Your task to perform on an android device: see tabs open on other devices in the chrome app Image 0: 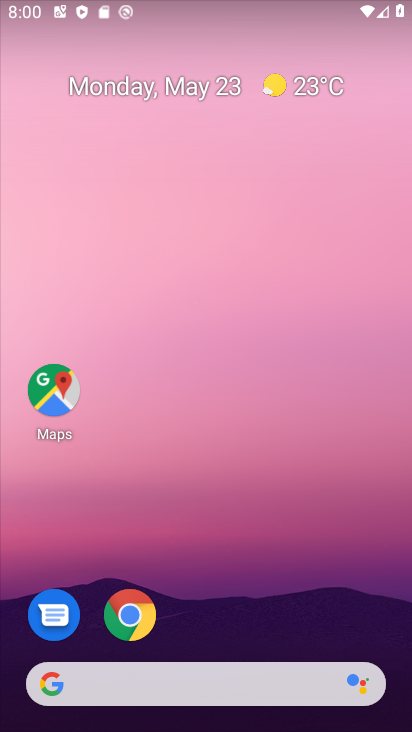
Step 0: click (131, 614)
Your task to perform on an android device: see tabs open on other devices in the chrome app Image 1: 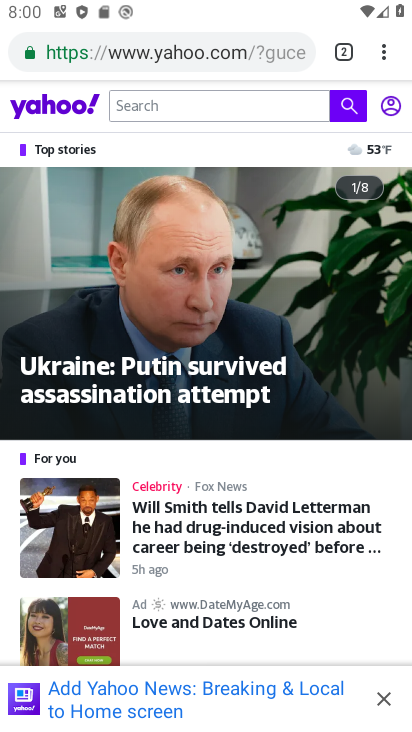
Step 1: click (384, 49)
Your task to perform on an android device: see tabs open on other devices in the chrome app Image 2: 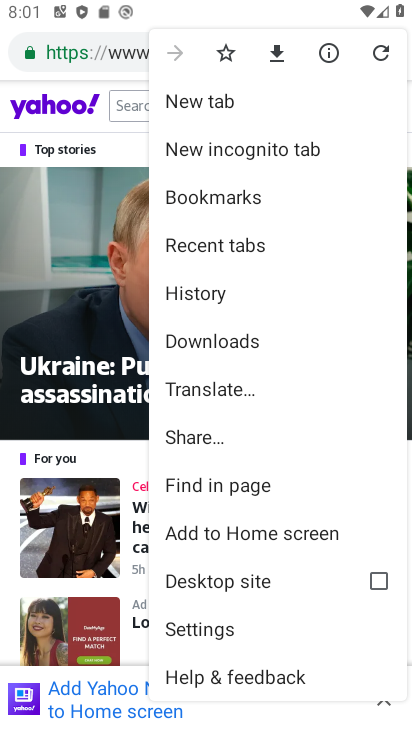
Step 2: click (249, 249)
Your task to perform on an android device: see tabs open on other devices in the chrome app Image 3: 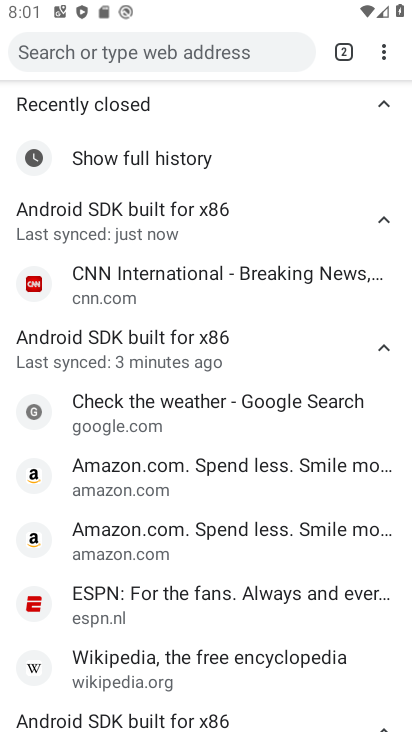
Step 3: task complete